Your task to perform on an android device: toggle improve location accuracy Image 0: 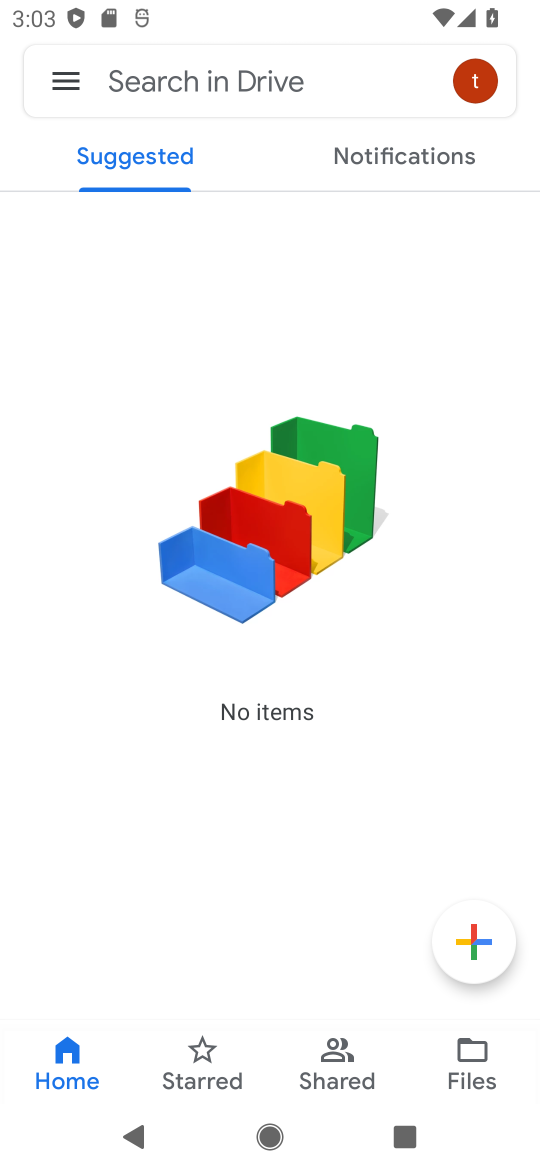
Step 0: press home button
Your task to perform on an android device: toggle improve location accuracy Image 1: 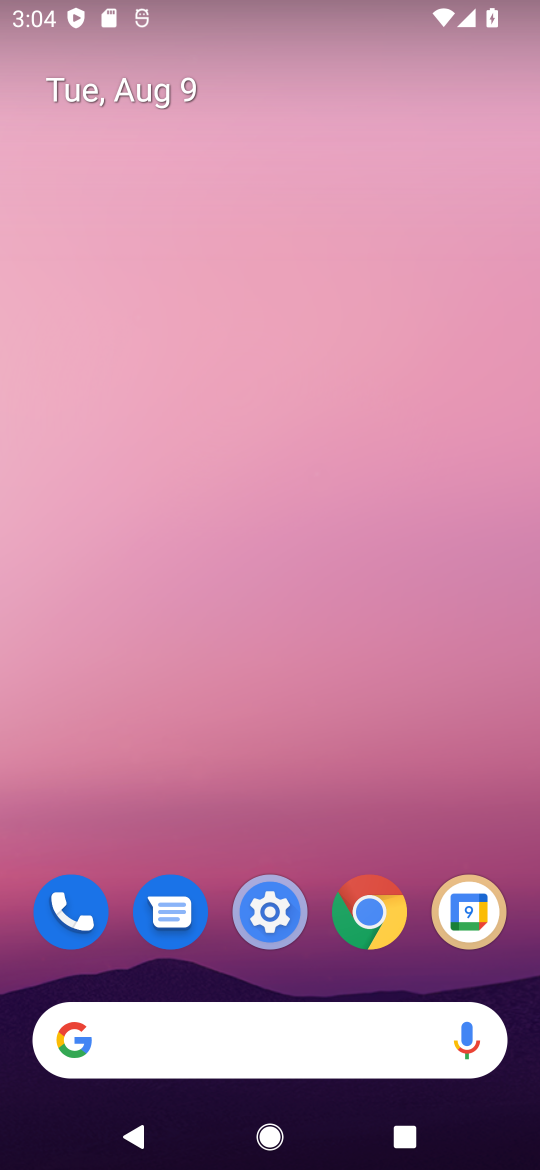
Step 1: drag from (325, 782) to (277, 29)
Your task to perform on an android device: toggle improve location accuracy Image 2: 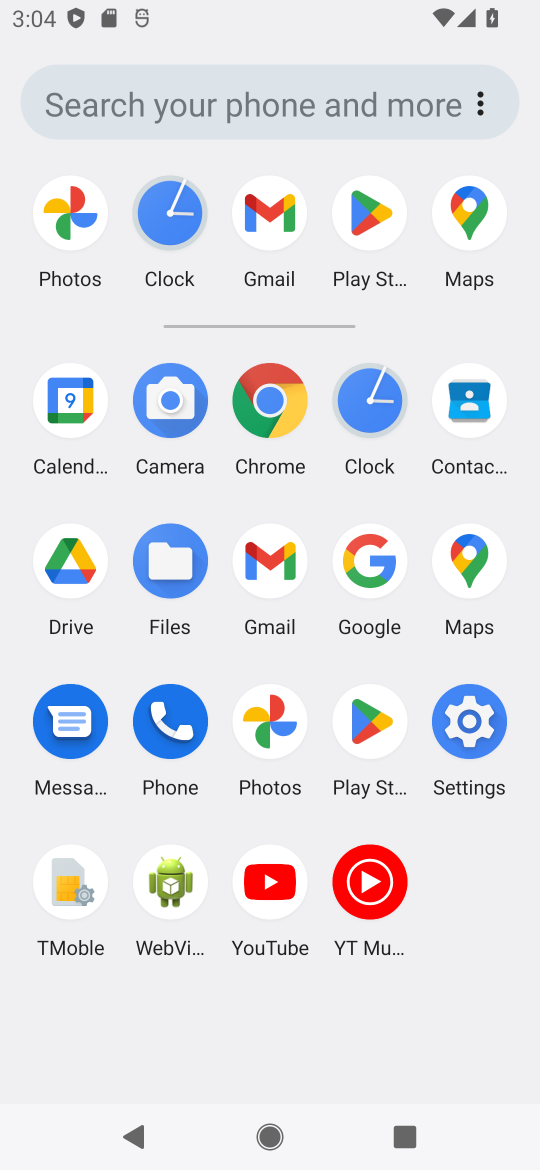
Step 2: click (469, 725)
Your task to perform on an android device: toggle improve location accuracy Image 3: 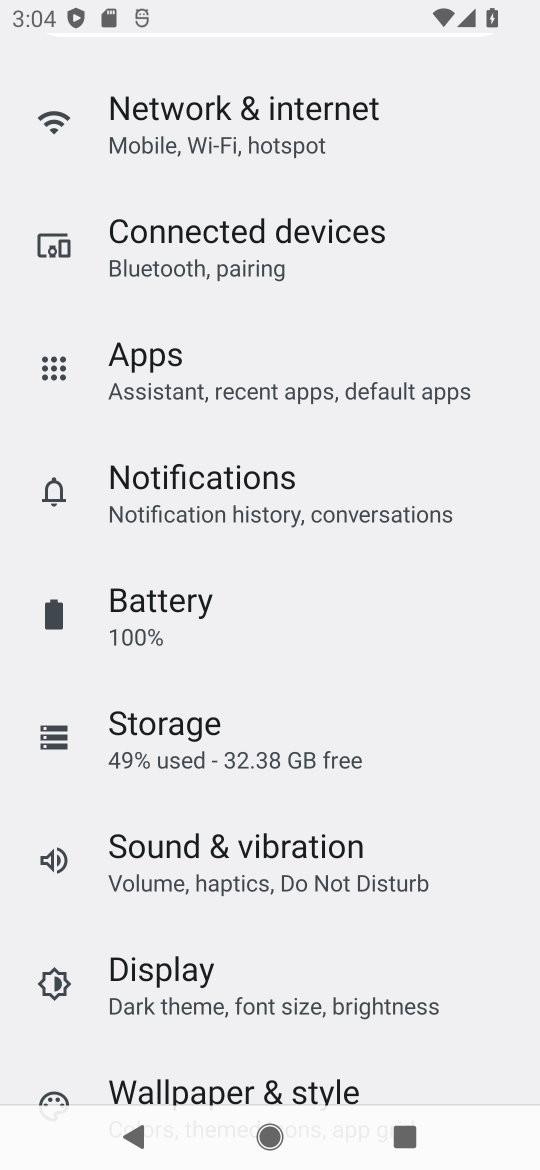
Step 3: drag from (287, 941) to (270, 319)
Your task to perform on an android device: toggle improve location accuracy Image 4: 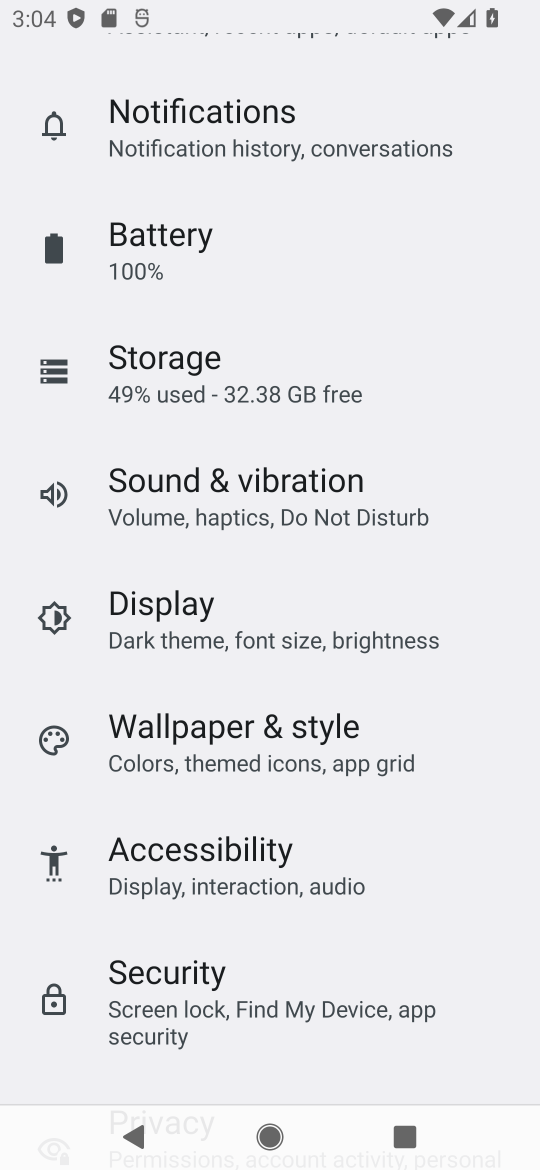
Step 4: drag from (365, 947) to (324, 253)
Your task to perform on an android device: toggle improve location accuracy Image 5: 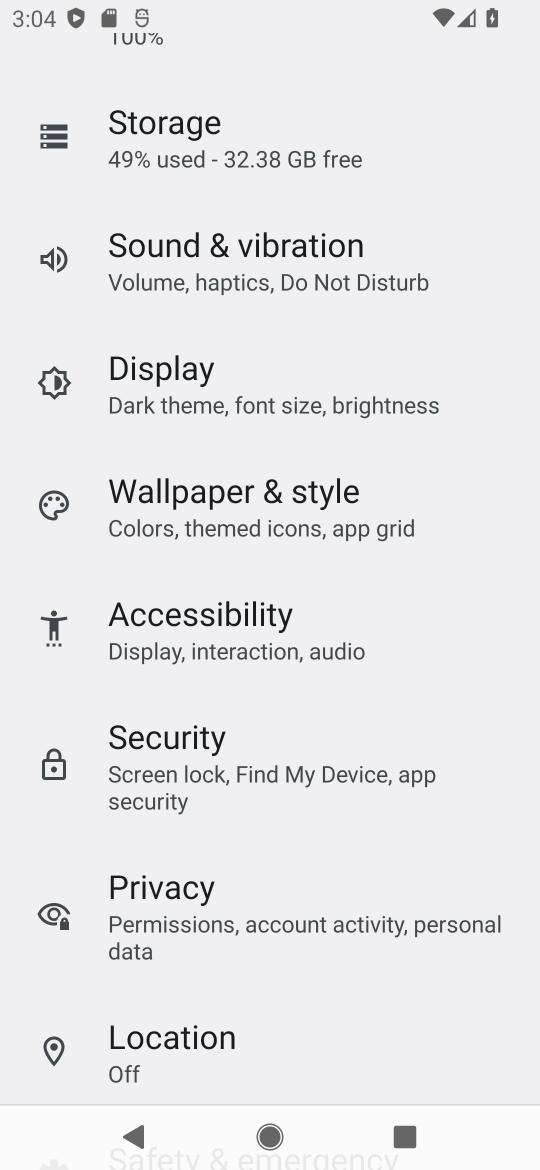
Step 5: click (160, 1032)
Your task to perform on an android device: toggle improve location accuracy Image 6: 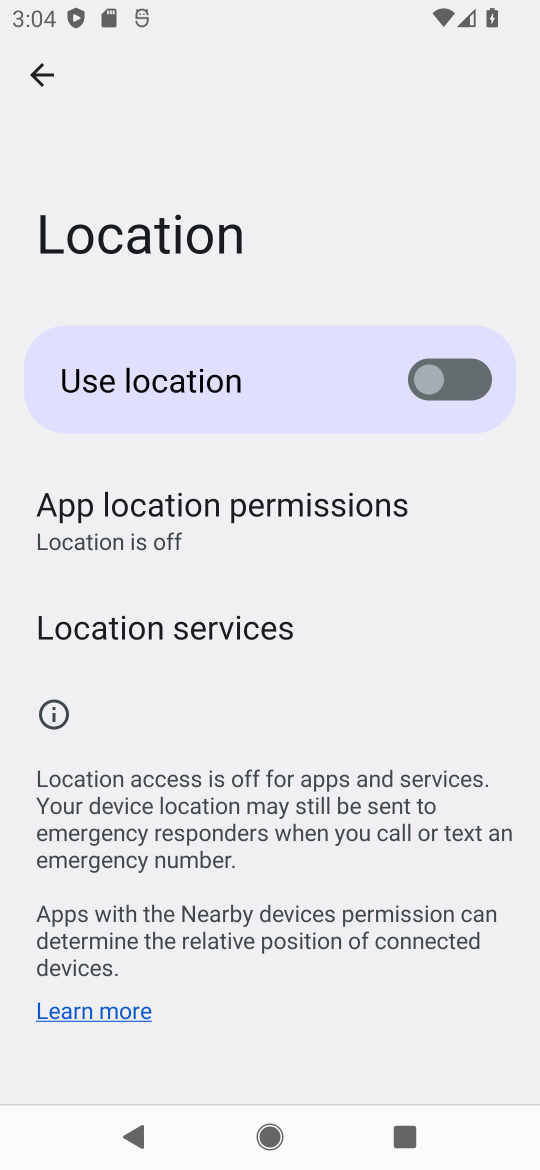
Step 6: click (167, 624)
Your task to perform on an android device: toggle improve location accuracy Image 7: 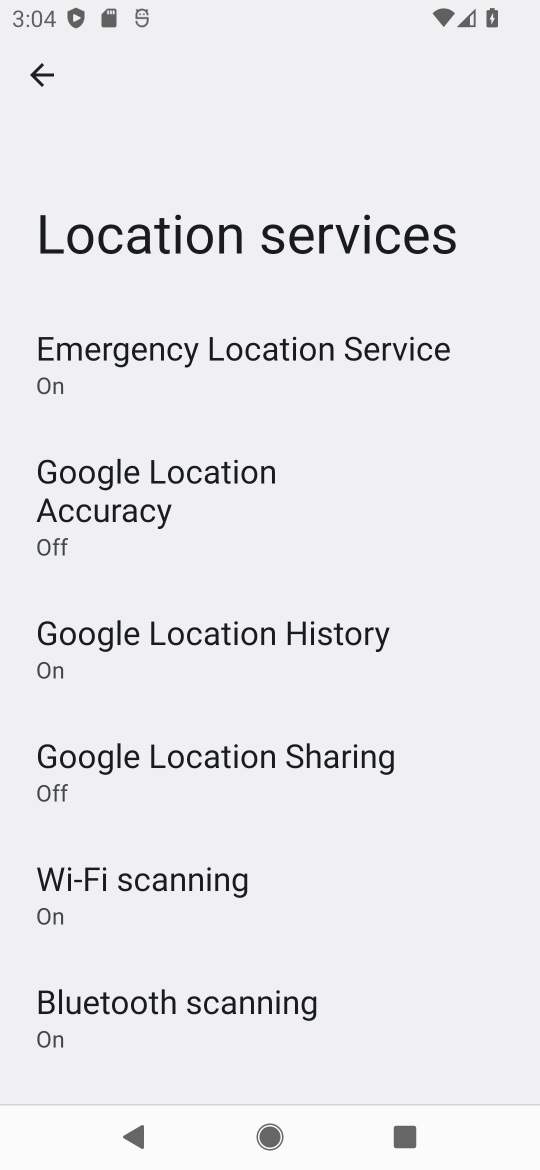
Step 7: click (119, 488)
Your task to perform on an android device: toggle improve location accuracy Image 8: 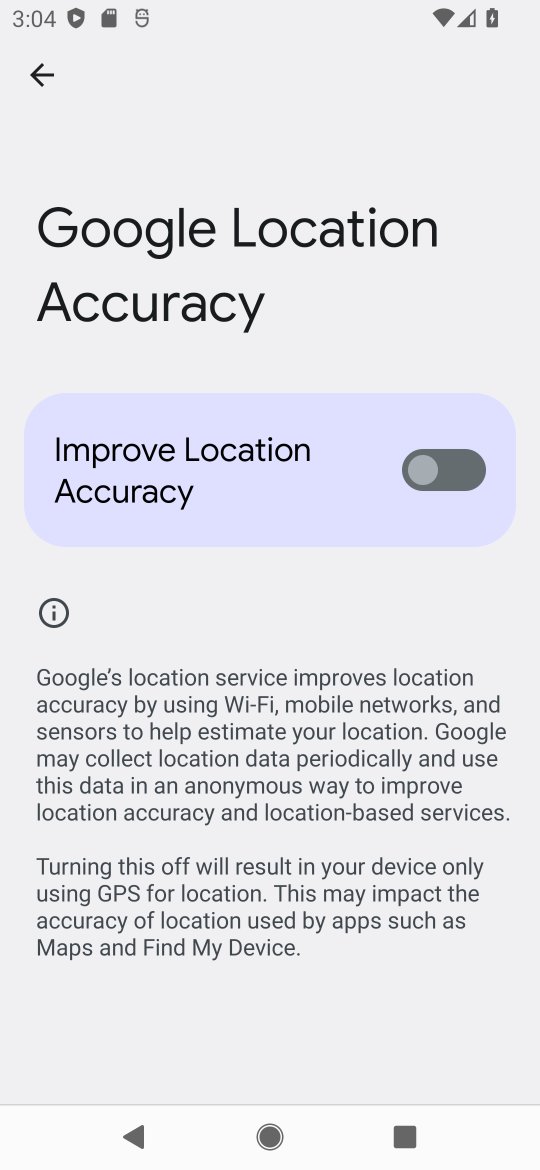
Step 8: click (416, 472)
Your task to perform on an android device: toggle improve location accuracy Image 9: 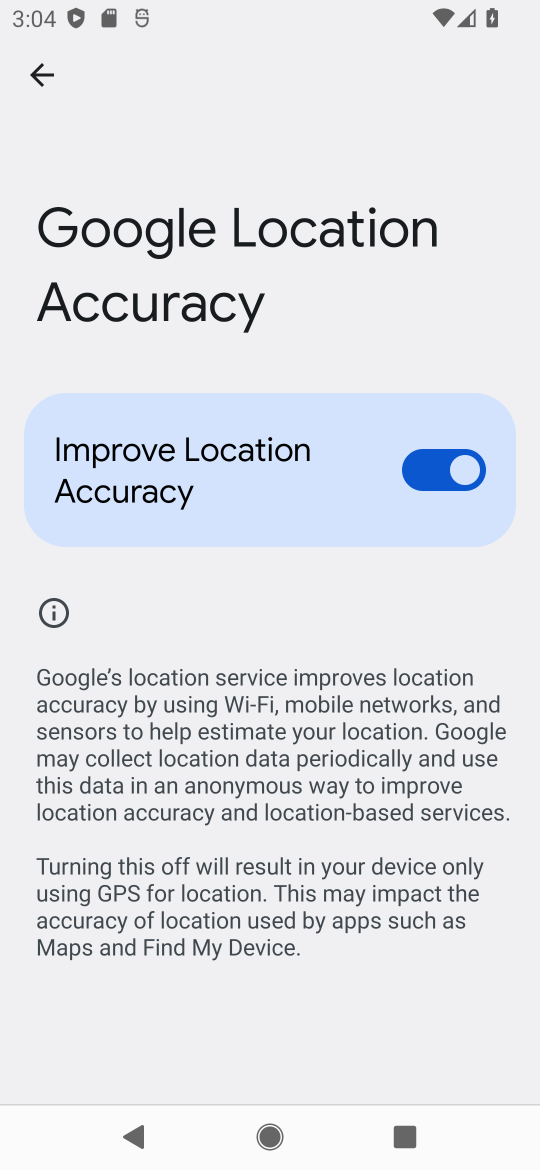
Step 9: task complete